Your task to perform on an android device: Open eBay Image 0: 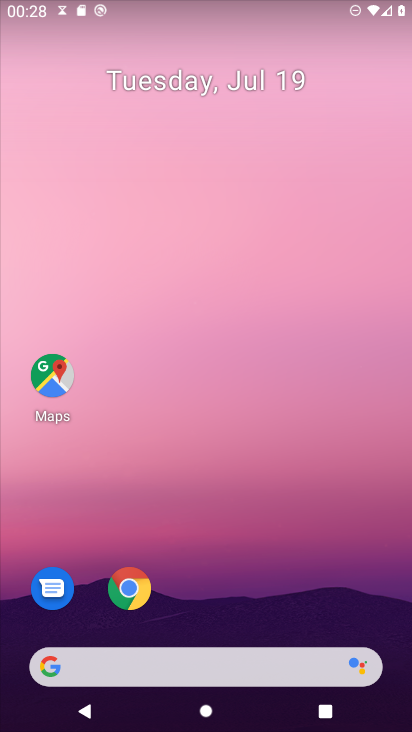
Step 0: press home button
Your task to perform on an android device: Open eBay Image 1: 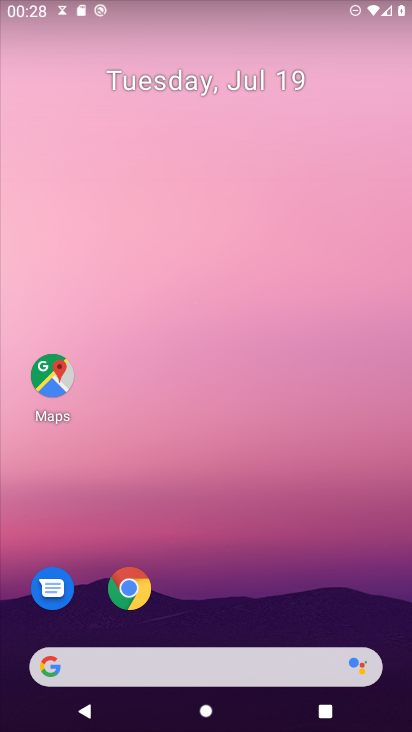
Step 1: click (49, 666)
Your task to perform on an android device: Open eBay Image 2: 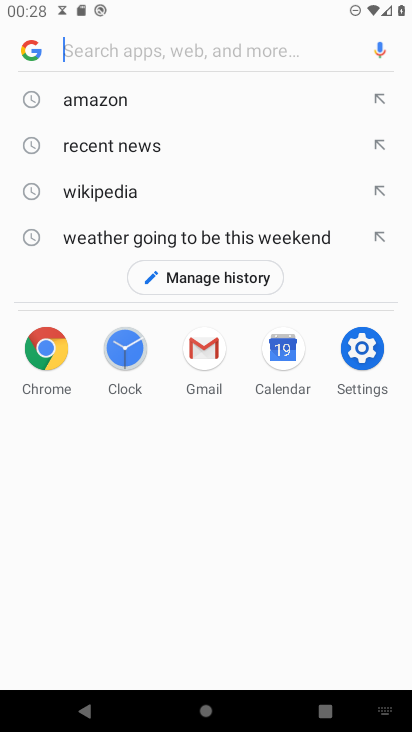
Step 2: type " eBay"
Your task to perform on an android device: Open eBay Image 3: 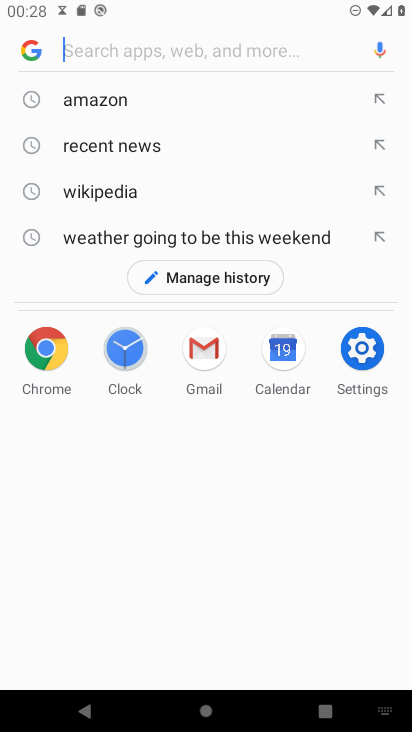
Step 3: click (74, 46)
Your task to perform on an android device: Open eBay Image 4: 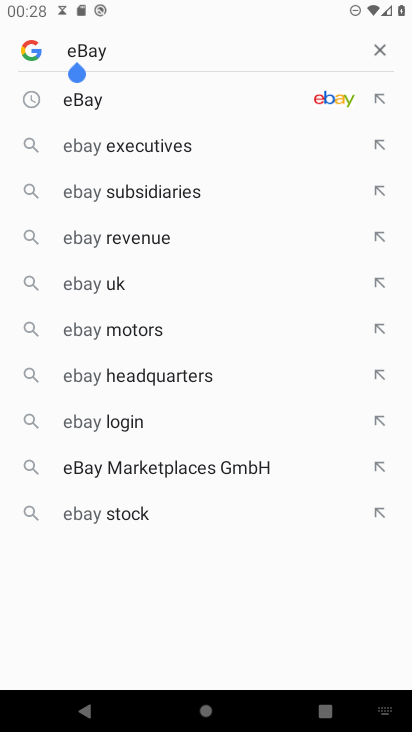
Step 4: click (326, 101)
Your task to perform on an android device: Open eBay Image 5: 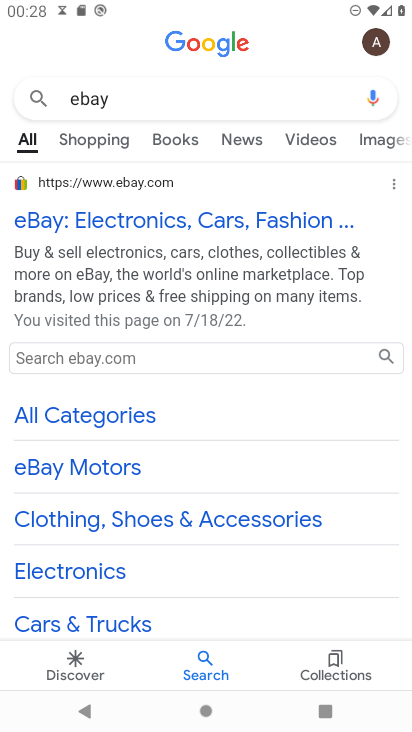
Step 5: click (49, 216)
Your task to perform on an android device: Open eBay Image 6: 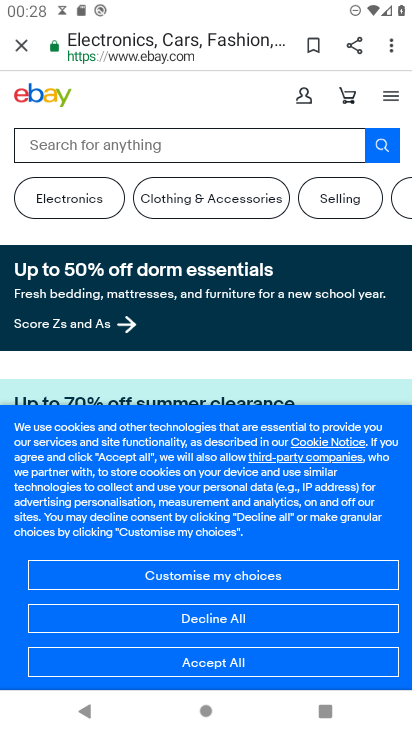
Step 6: task complete